Your task to perform on an android device: show emergency info Image 0: 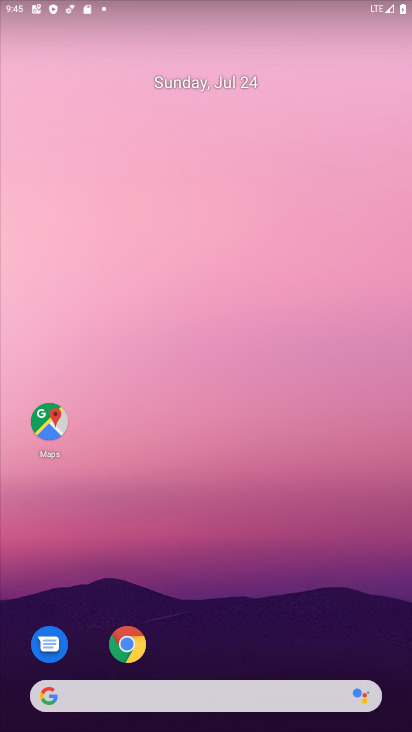
Step 0: drag from (203, 665) to (248, 267)
Your task to perform on an android device: show emergency info Image 1: 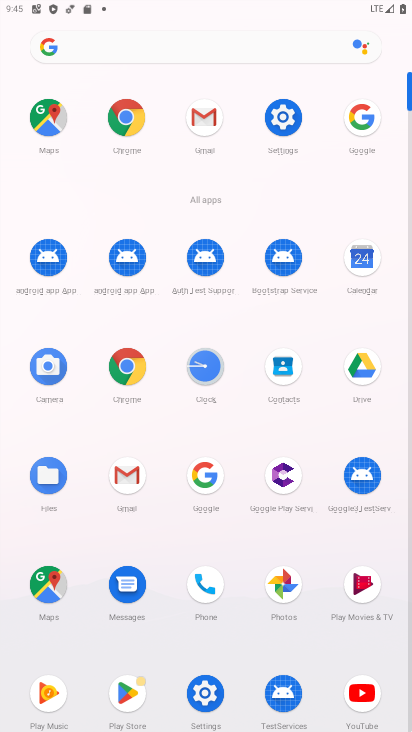
Step 1: click (288, 107)
Your task to perform on an android device: show emergency info Image 2: 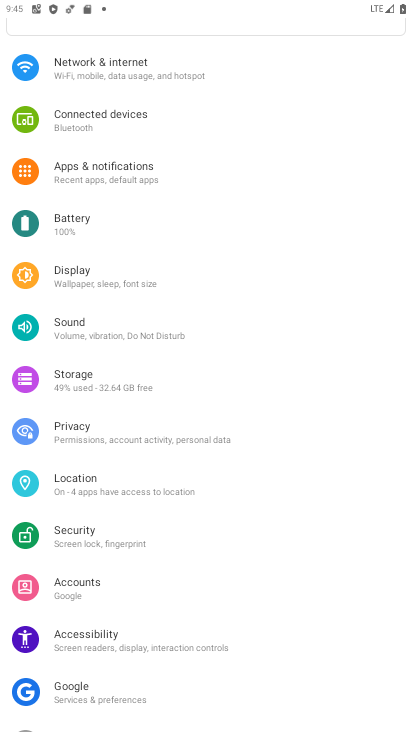
Step 2: drag from (160, 699) to (216, 263)
Your task to perform on an android device: show emergency info Image 3: 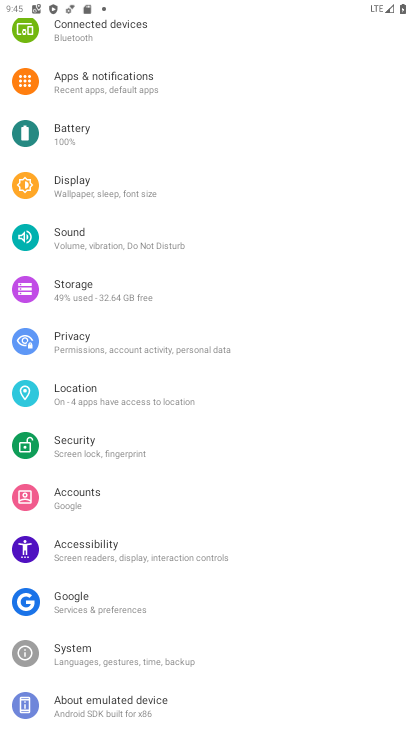
Step 3: click (85, 703)
Your task to perform on an android device: show emergency info Image 4: 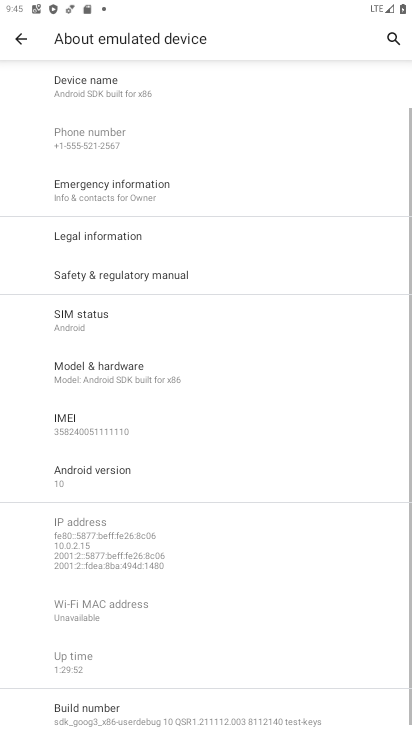
Step 4: click (115, 190)
Your task to perform on an android device: show emergency info Image 5: 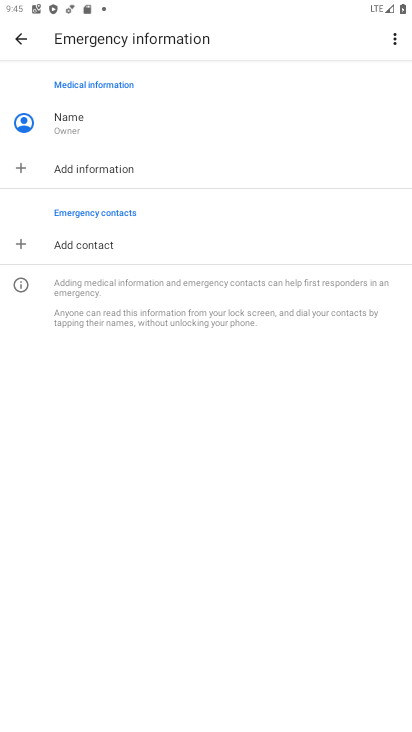
Step 5: task complete